Your task to perform on an android device: Go to Maps Image 0: 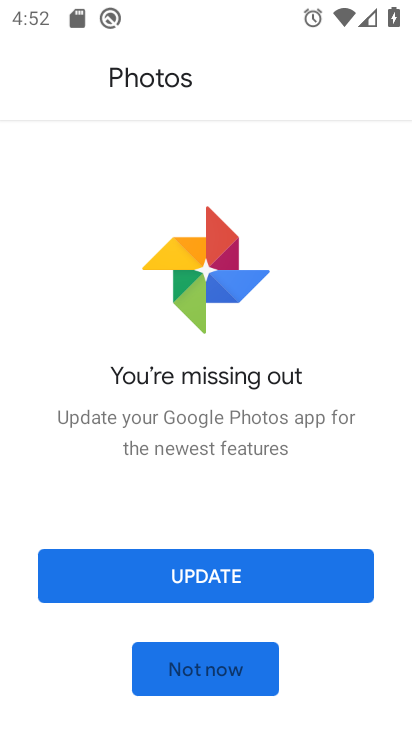
Step 0: press home button
Your task to perform on an android device: Go to Maps Image 1: 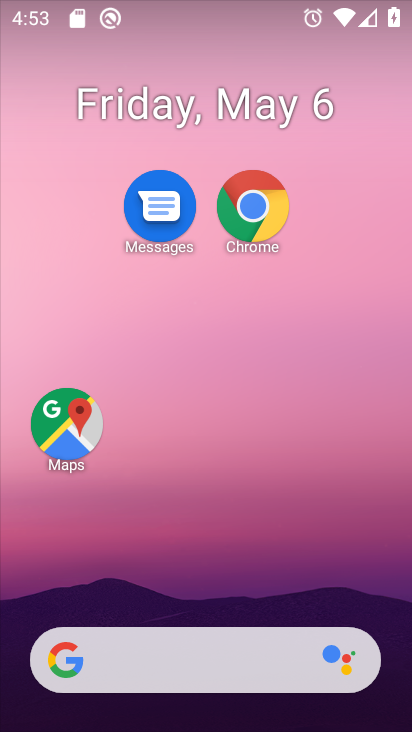
Step 1: click (70, 429)
Your task to perform on an android device: Go to Maps Image 2: 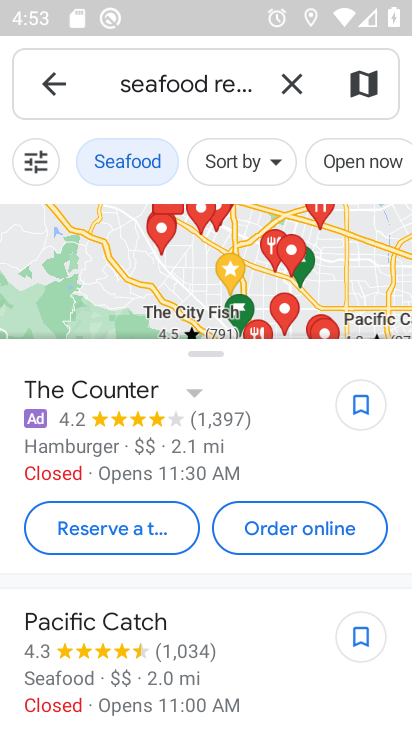
Step 2: click (289, 83)
Your task to perform on an android device: Go to Maps Image 3: 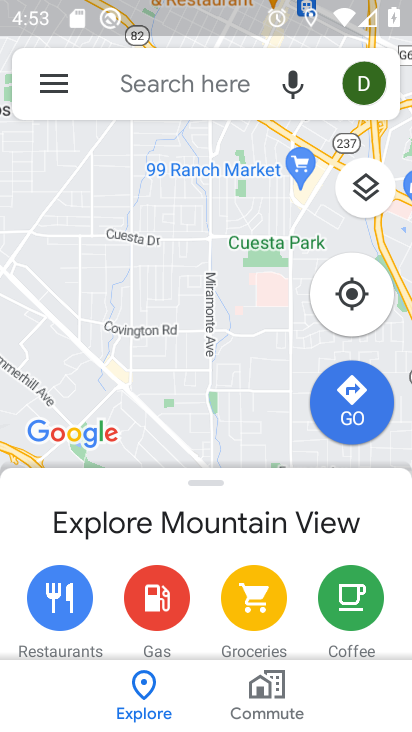
Step 3: task complete